Your task to perform on an android device: change the upload size in google photos Image 0: 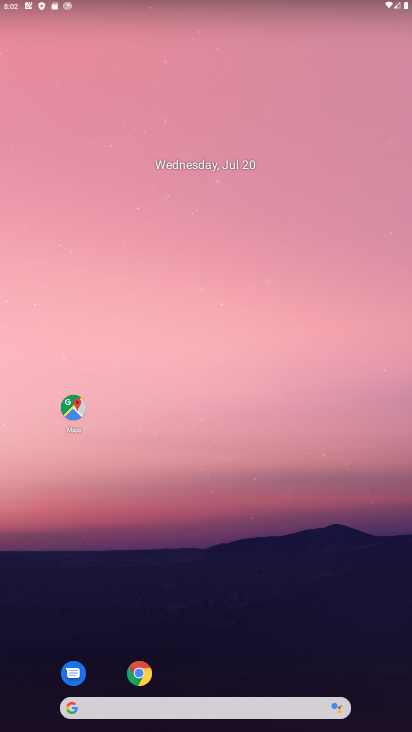
Step 0: press home button
Your task to perform on an android device: change the upload size in google photos Image 1: 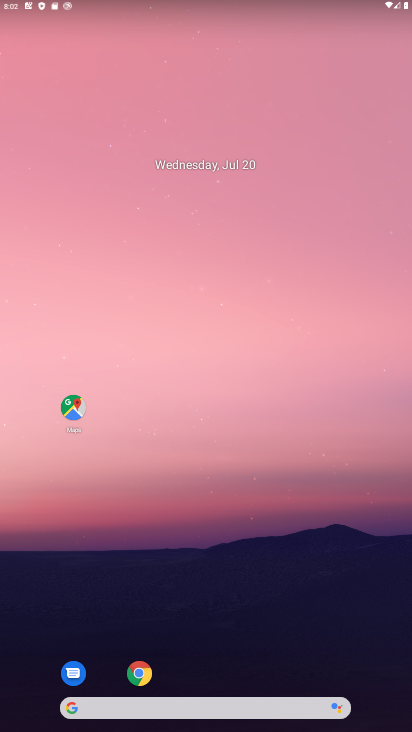
Step 1: drag from (144, 660) to (155, 14)
Your task to perform on an android device: change the upload size in google photos Image 2: 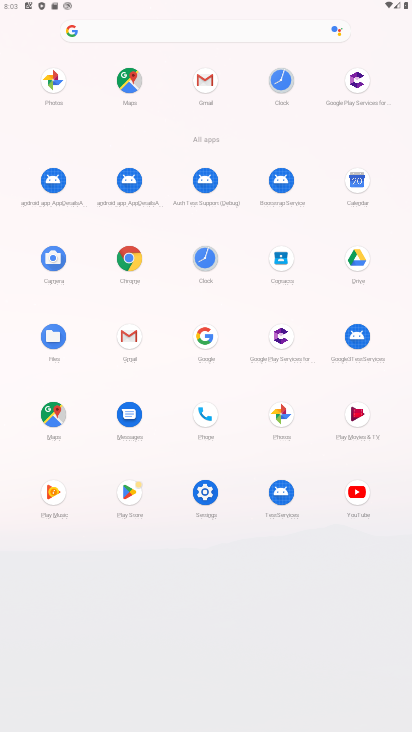
Step 2: click (280, 407)
Your task to perform on an android device: change the upload size in google photos Image 3: 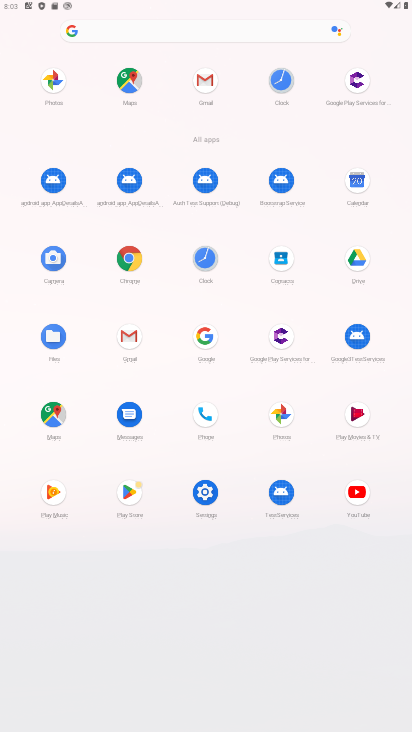
Step 3: click (281, 405)
Your task to perform on an android device: change the upload size in google photos Image 4: 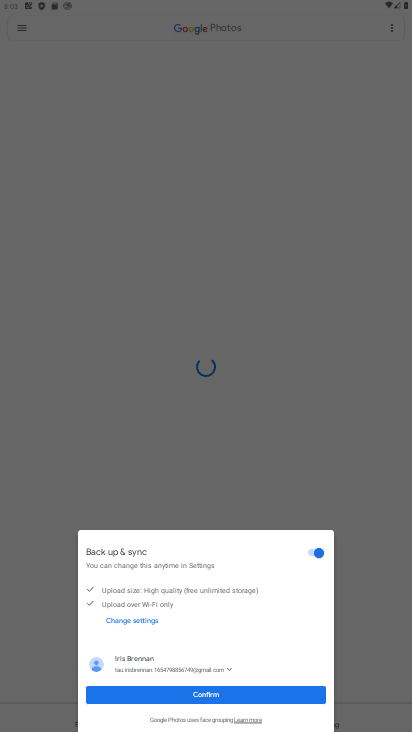
Step 4: click (229, 684)
Your task to perform on an android device: change the upload size in google photos Image 5: 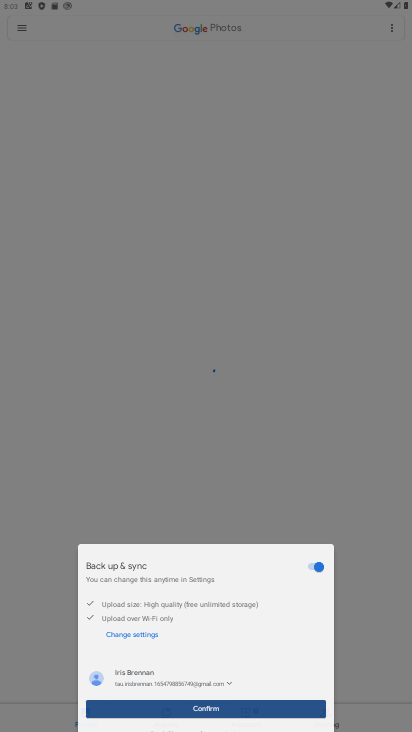
Step 5: click (235, 688)
Your task to perform on an android device: change the upload size in google photos Image 6: 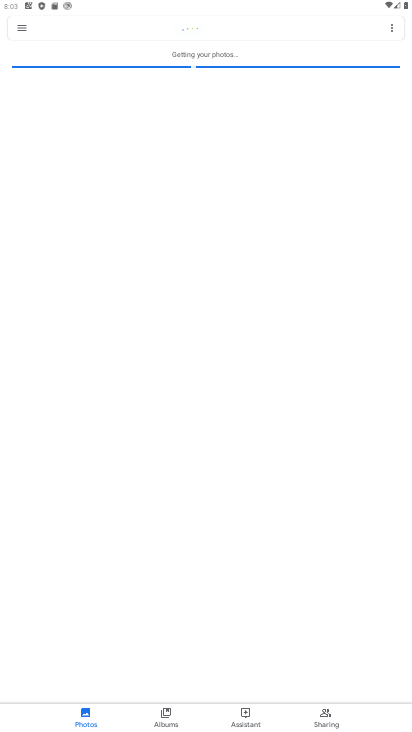
Step 6: click (18, 28)
Your task to perform on an android device: change the upload size in google photos Image 7: 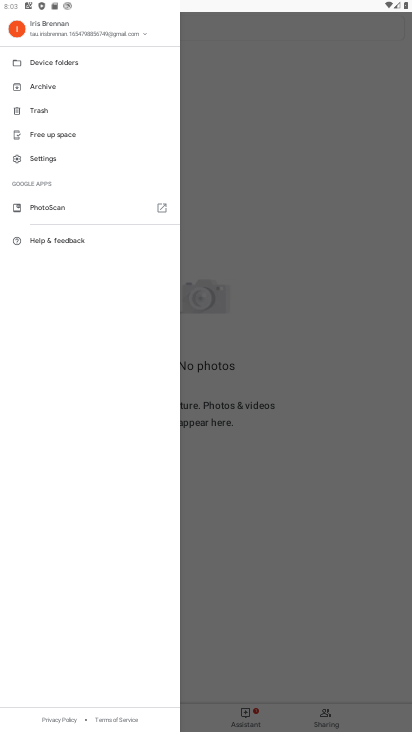
Step 7: click (60, 154)
Your task to perform on an android device: change the upload size in google photos Image 8: 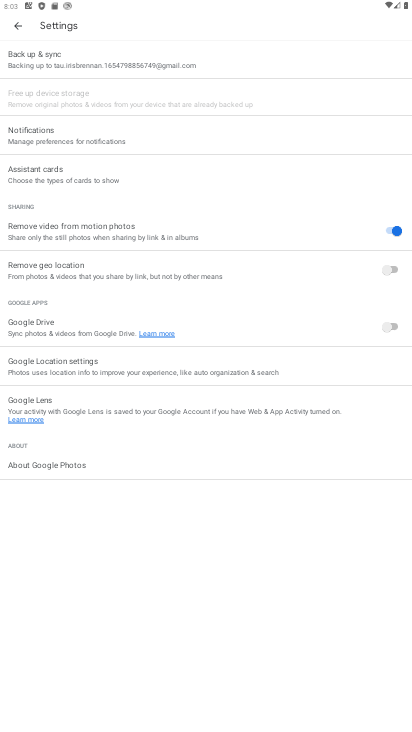
Step 8: click (116, 52)
Your task to perform on an android device: change the upload size in google photos Image 9: 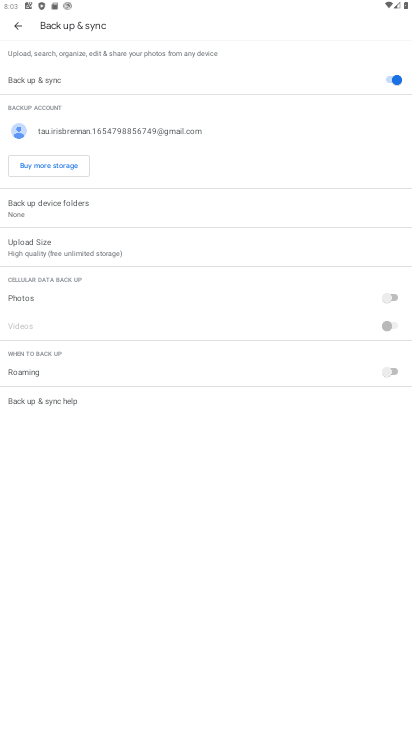
Step 9: click (36, 259)
Your task to perform on an android device: change the upload size in google photos Image 10: 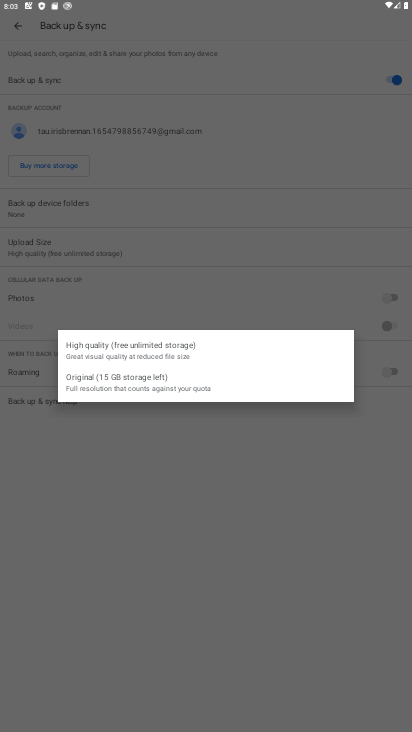
Step 10: click (156, 348)
Your task to perform on an android device: change the upload size in google photos Image 11: 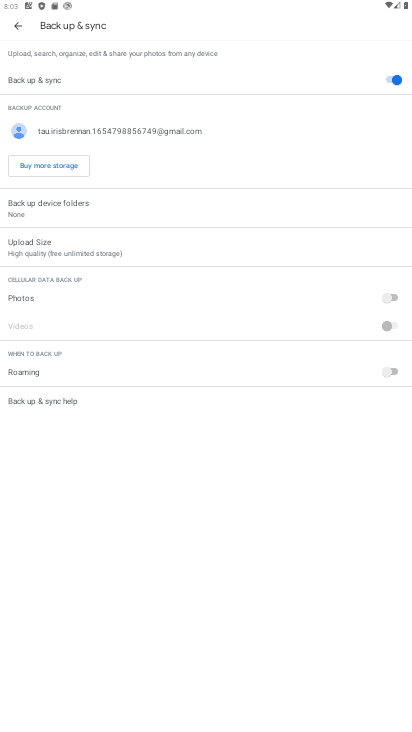
Step 11: task complete